Your task to perform on an android device: allow notifications from all sites in the chrome app Image 0: 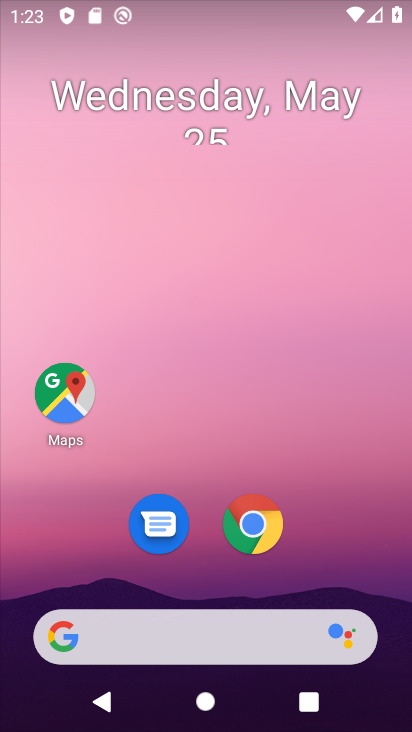
Step 0: click (261, 521)
Your task to perform on an android device: allow notifications from all sites in the chrome app Image 1: 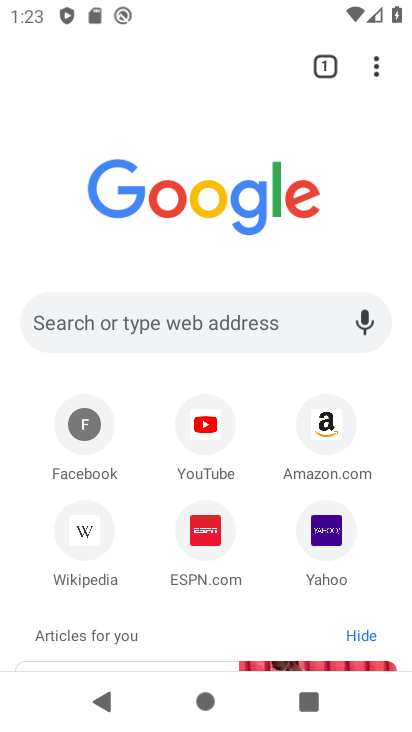
Step 1: click (371, 67)
Your task to perform on an android device: allow notifications from all sites in the chrome app Image 2: 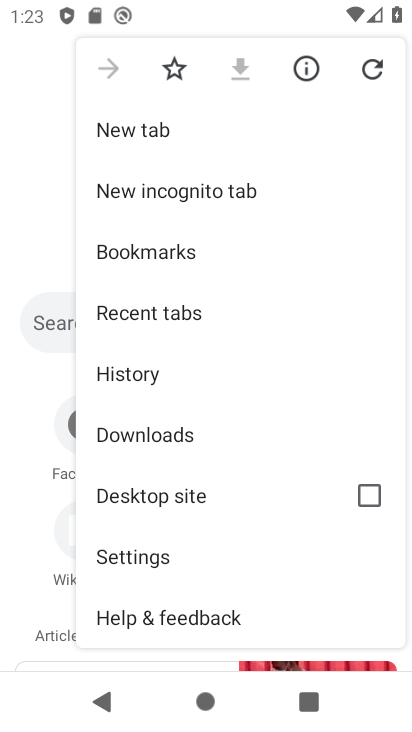
Step 2: click (217, 564)
Your task to perform on an android device: allow notifications from all sites in the chrome app Image 3: 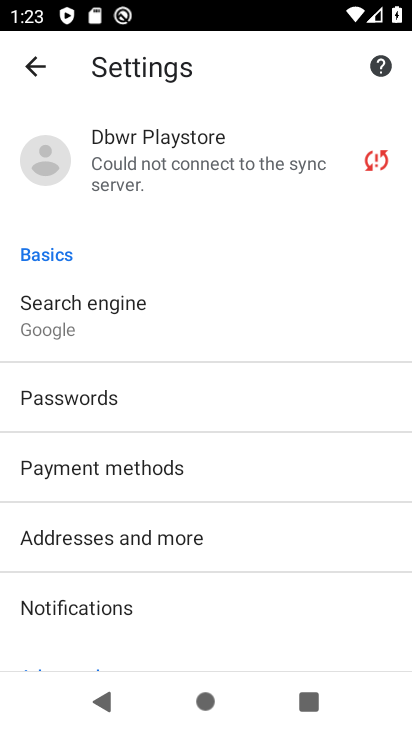
Step 3: click (217, 611)
Your task to perform on an android device: allow notifications from all sites in the chrome app Image 4: 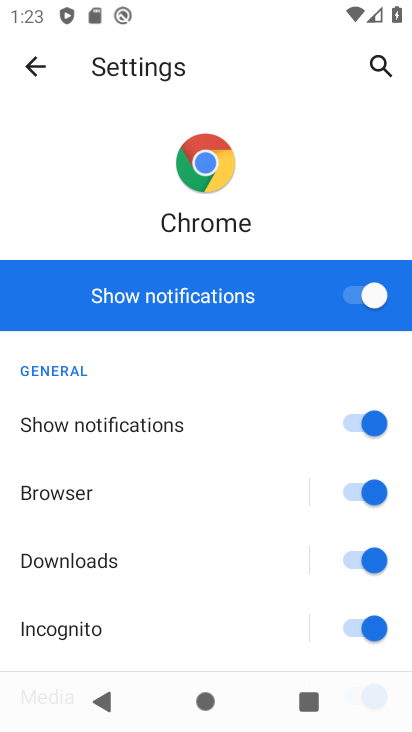
Step 4: task complete